Your task to perform on an android device: Is it going to rain today? Image 0: 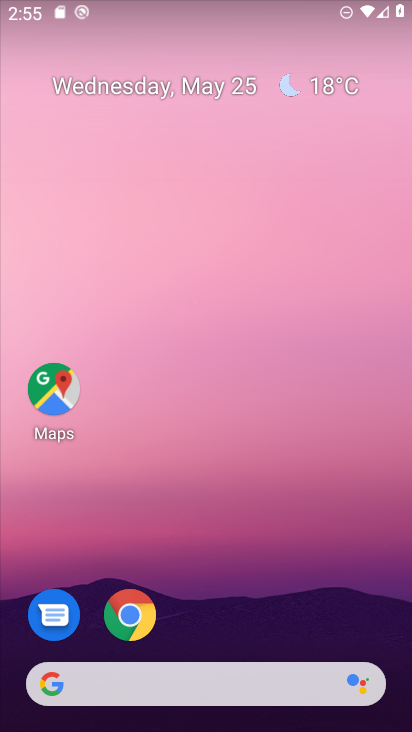
Step 0: drag from (218, 535) to (238, 28)
Your task to perform on an android device: Is it going to rain today? Image 1: 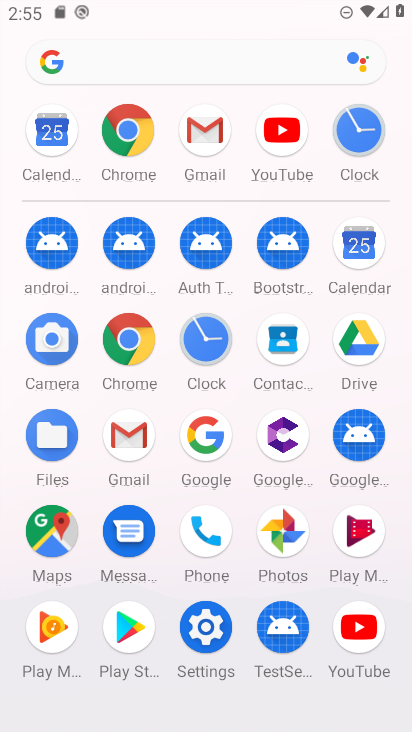
Step 1: click (198, 56)
Your task to perform on an android device: Is it going to rain today? Image 2: 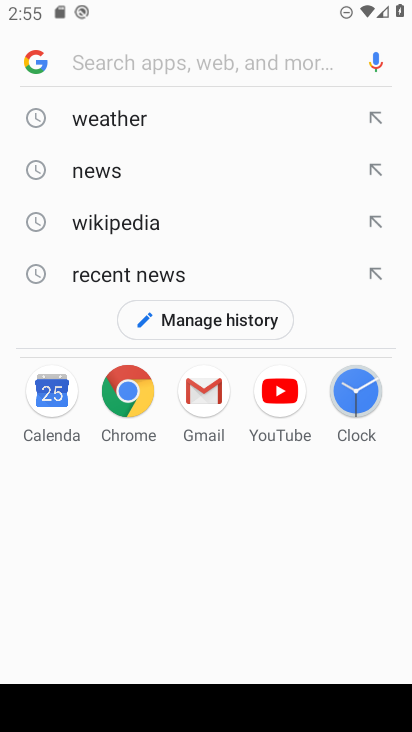
Step 2: click (143, 116)
Your task to perform on an android device: Is it going to rain today? Image 3: 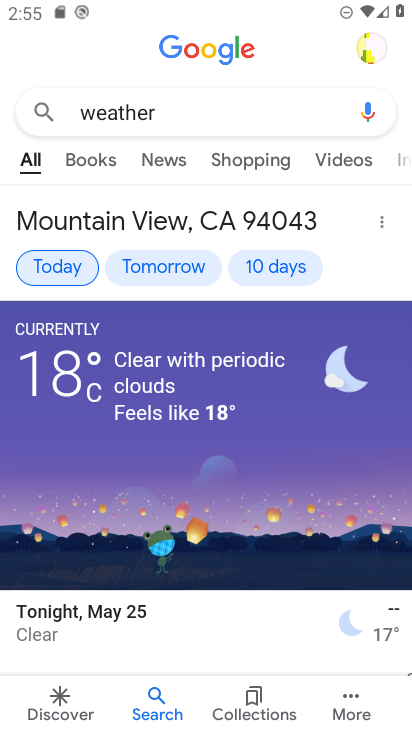
Step 3: click (67, 264)
Your task to perform on an android device: Is it going to rain today? Image 4: 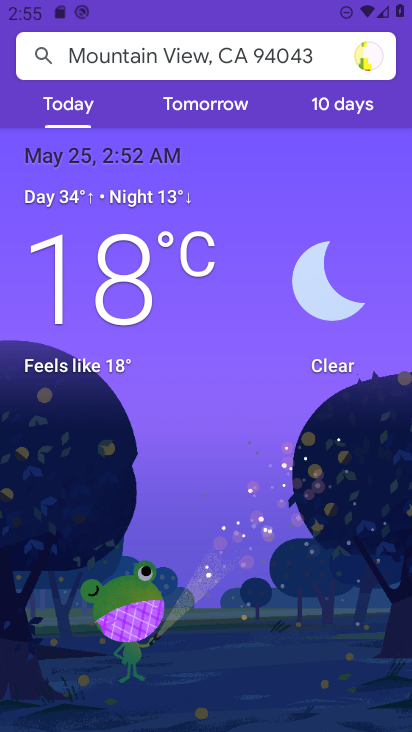
Step 4: task complete